Your task to perform on an android device: search for starred emails in the gmail app Image 0: 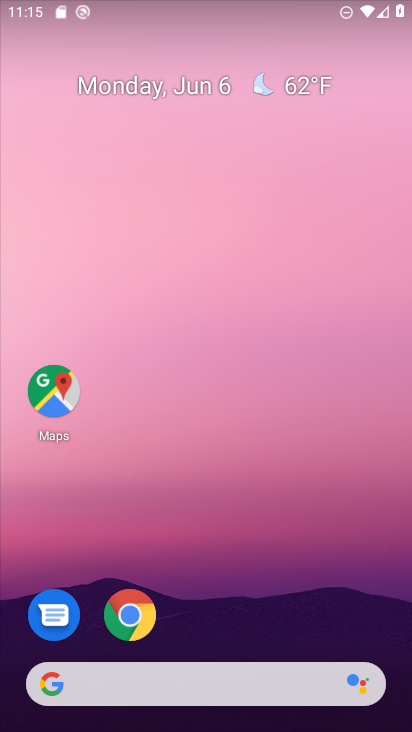
Step 0: drag from (208, 681) to (195, 305)
Your task to perform on an android device: search for starred emails in the gmail app Image 1: 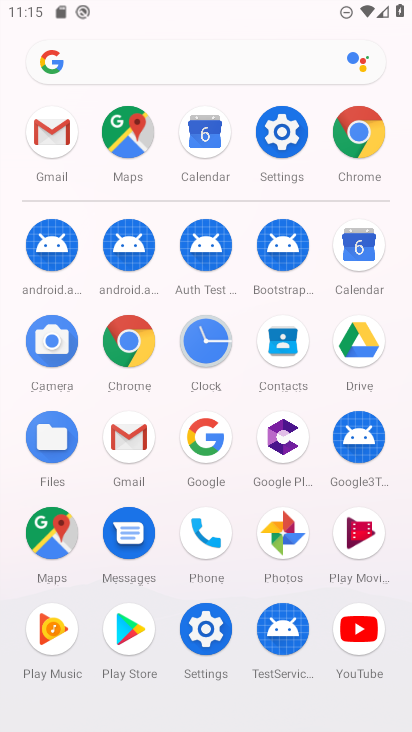
Step 1: click (36, 130)
Your task to perform on an android device: search for starred emails in the gmail app Image 2: 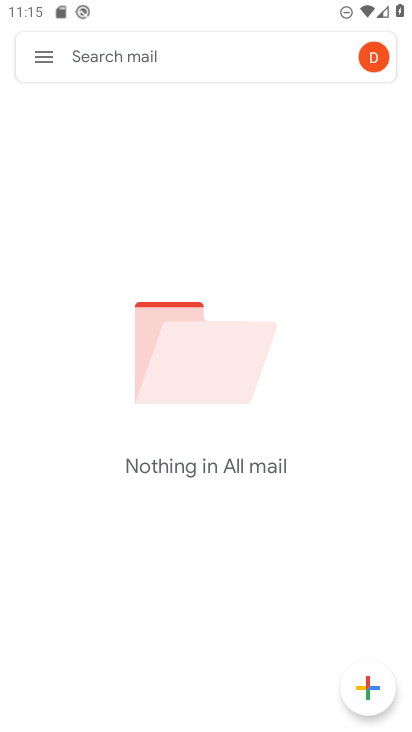
Step 2: click (33, 54)
Your task to perform on an android device: search for starred emails in the gmail app Image 3: 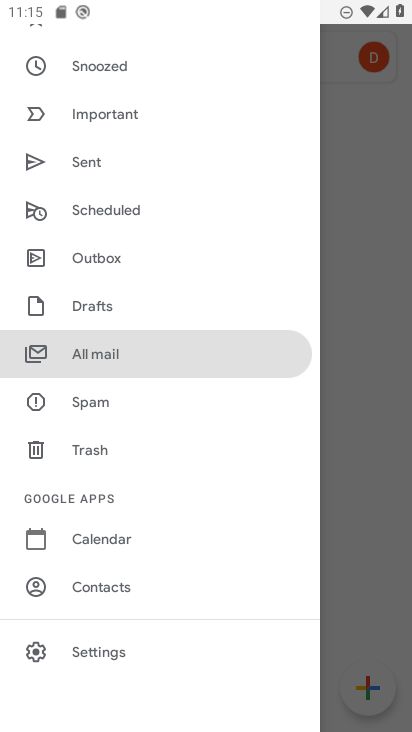
Step 3: drag from (113, 179) to (120, 587)
Your task to perform on an android device: search for starred emails in the gmail app Image 4: 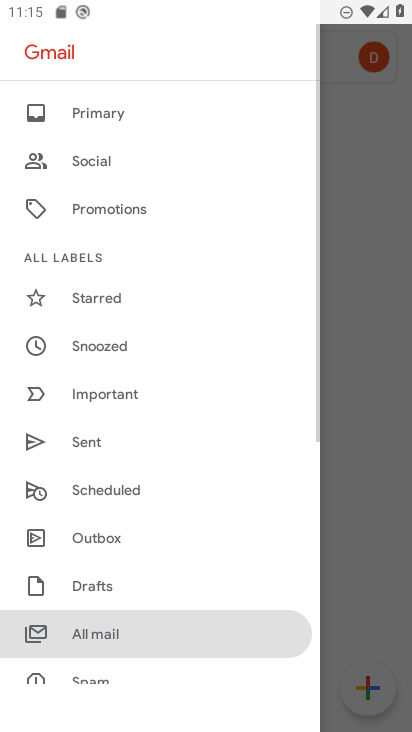
Step 4: click (111, 298)
Your task to perform on an android device: search for starred emails in the gmail app Image 5: 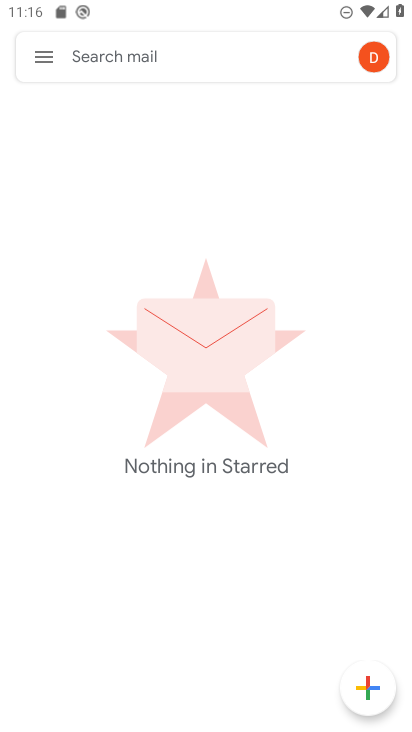
Step 5: task complete